Your task to perform on an android device: check out phone information Image 0: 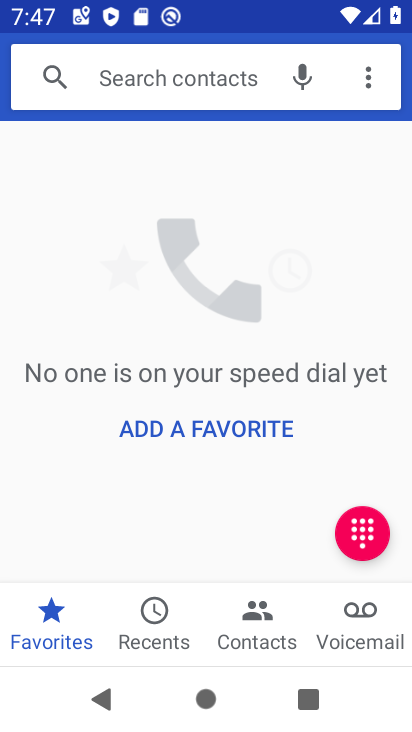
Step 0: press home button
Your task to perform on an android device: check out phone information Image 1: 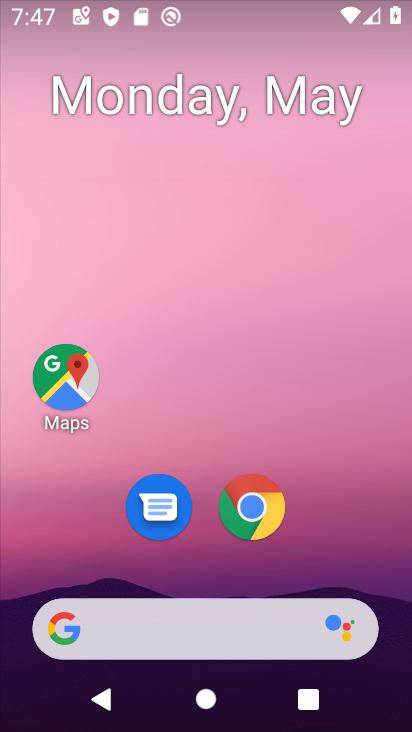
Step 1: drag from (205, 573) to (245, 37)
Your task to perform on an android device: check out phone information Image 2: 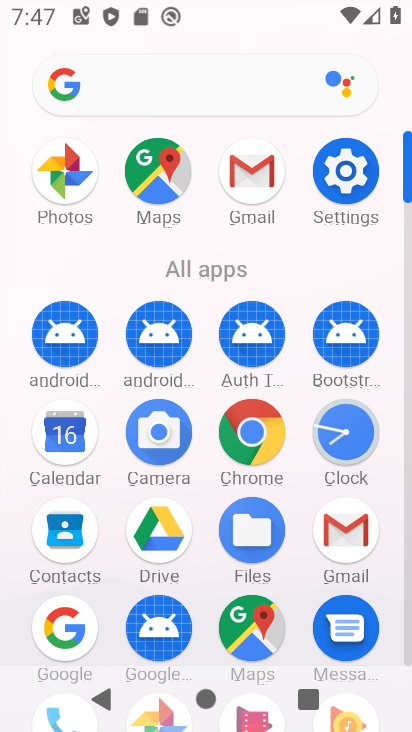
Step 2: click (346, 164)
Your task to perform on an android device: check out phone information Image 3: 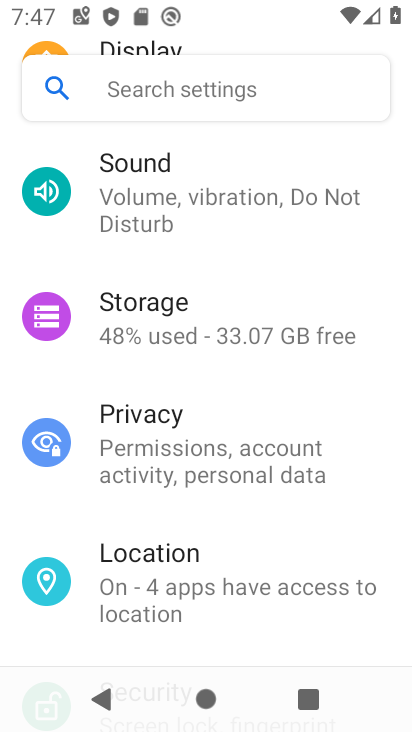
Step 3: drag from (216, 569) to (255, 61)
Your task to perform on an android device: check out phone information Image 4: 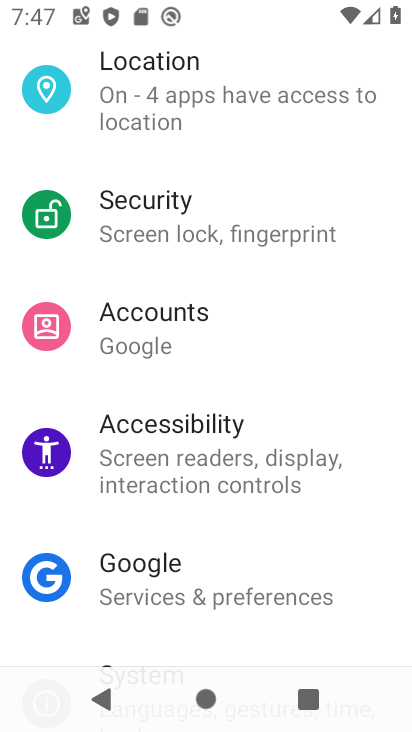
Step 4: drag from (220, 629) to (271, 159)
Your task to perform on an android device: check out phone information Image 5: 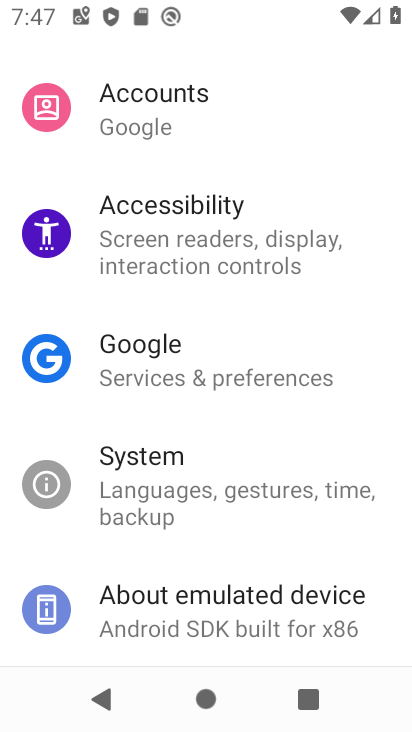
Step 5: click (229, 606)
Your task to perform on an android device: check out phone information Image 6: 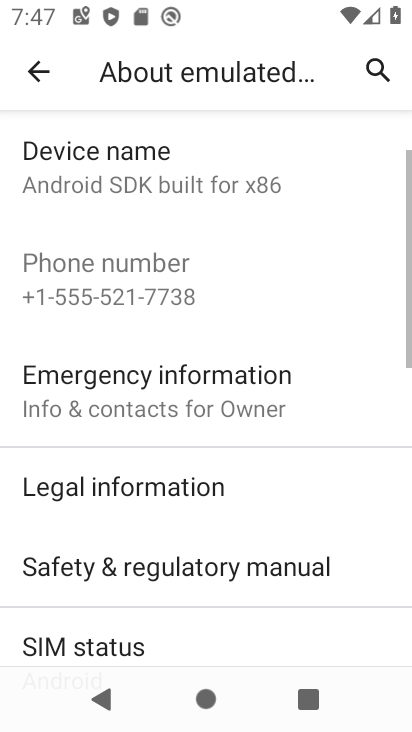
Step 6: task complete